Your task to perform on an android device: see sites visited before in the chrome app Image 0: 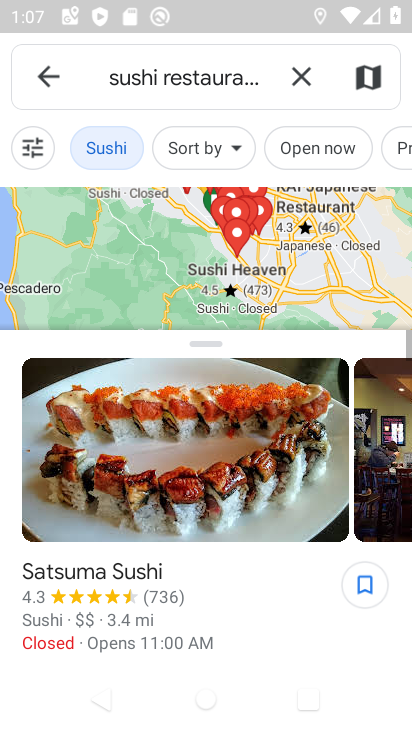
Step 0: press home button
Your task to perform on an android device: see sites visited before in the chrome app Image 1: 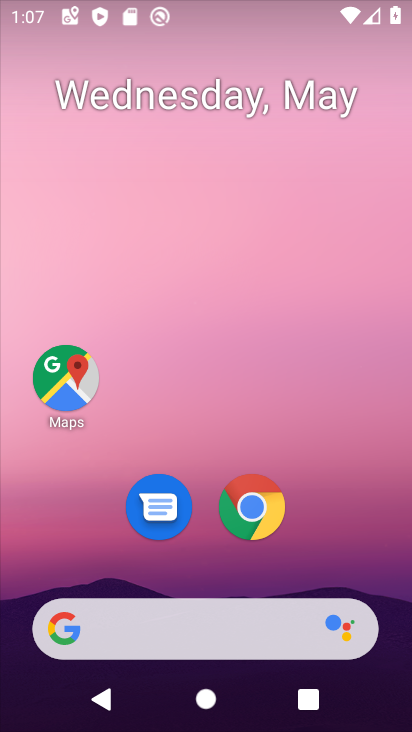
Step 1: click (233, 499)
Your task to perform on an android device: see sites visited before in the chrome app Image 2: 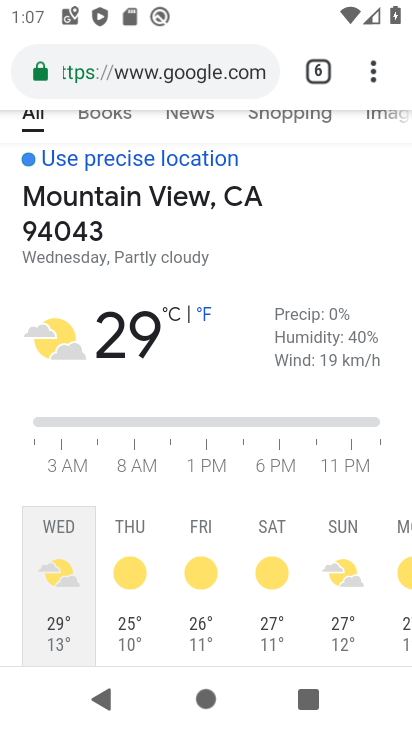
Step 2: click (370, 67)
Your task to perform on an android device: see sites visited before in the chrome app Image 3: 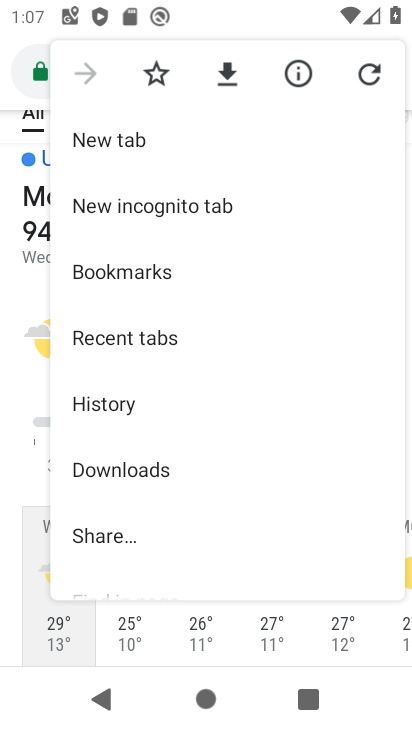
Step 3: click (131, 411)
Your task to perform on an android device: see sites visited before in the chrome app Image 4: 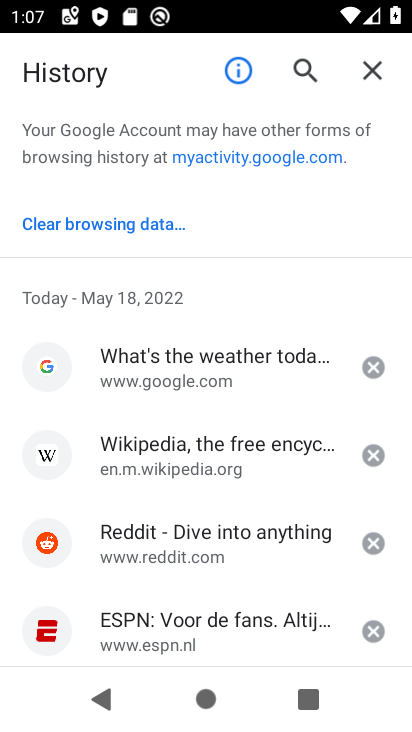
Step 4: task complete